Your task to perform on an android device: open chrome and create a bookmark for the current page Image 0: 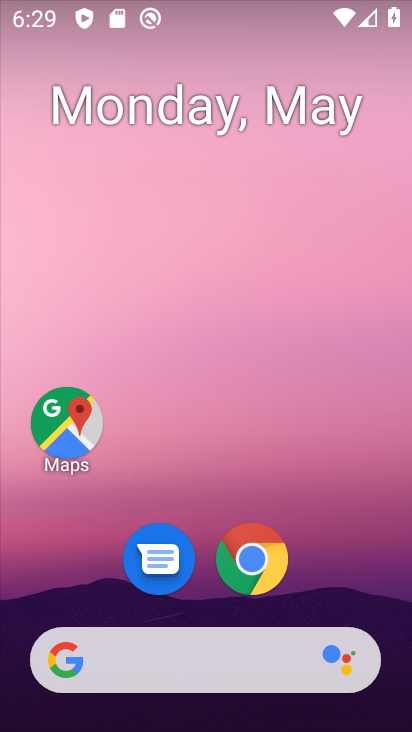
Step 0: drag from (390, 649) to (326, 57)
Your task to perform on an android device: open chrome and create a bookmark for the current page Image 1: 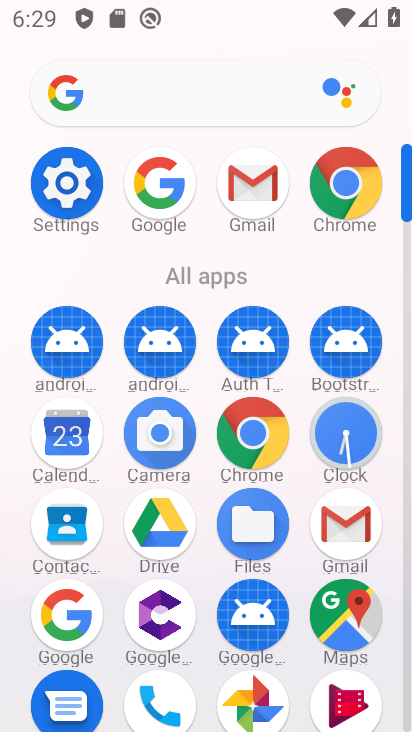
Step 1: click (353, 177)
Your task to perform on an android device: open chrome and create a bookmark for the current page Image 2: 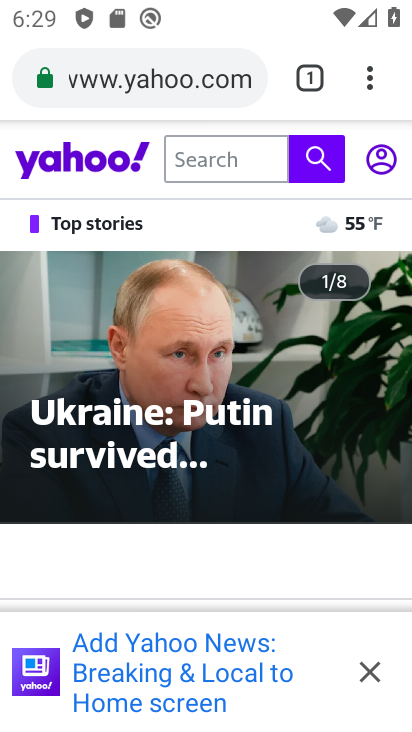
Step 2: press back button
Your task to perform on an android device: open chrome and create a bookmark for the current page Image 3: 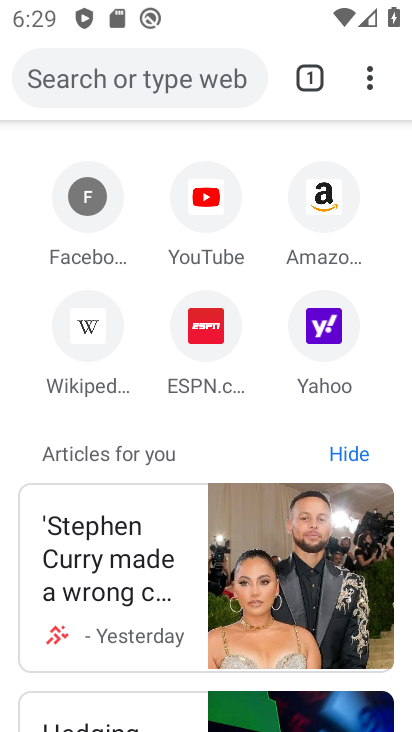
Step 3: click (372, 71)
Your task to perform on an android device: open chrome and create a bookmark for the current page Image 4: 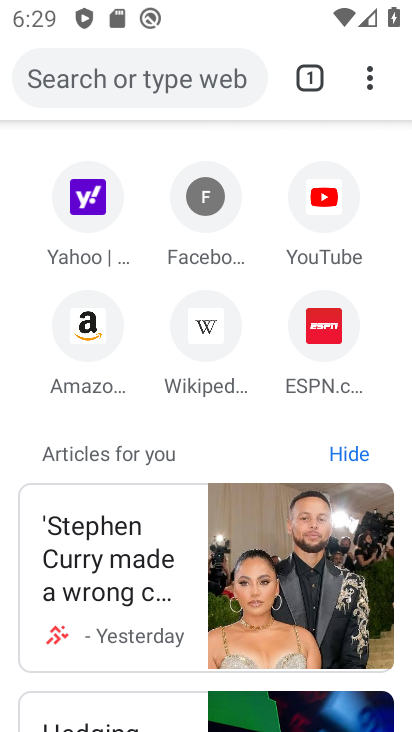
Step 4: click (369, 69)
Your task to perform on an android device: open chrome and create a bookmark for the current page Image 5: 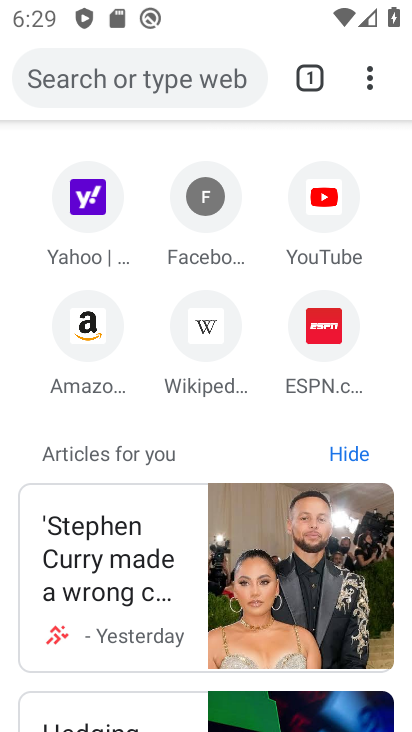
Step 5: click (369, 69)
Your task to perform on an android device: open chrome and create a bookmark for the current page Image 6: 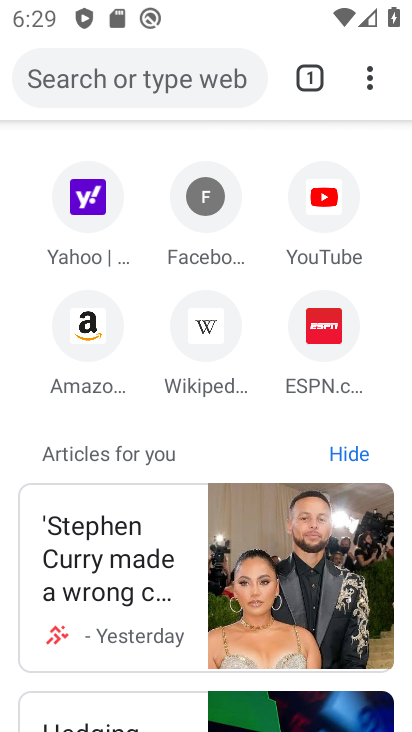
Step 6: click (368, 81)
Your task to perform on an android device: open chrome and create a bookmark for the current page Image 7: 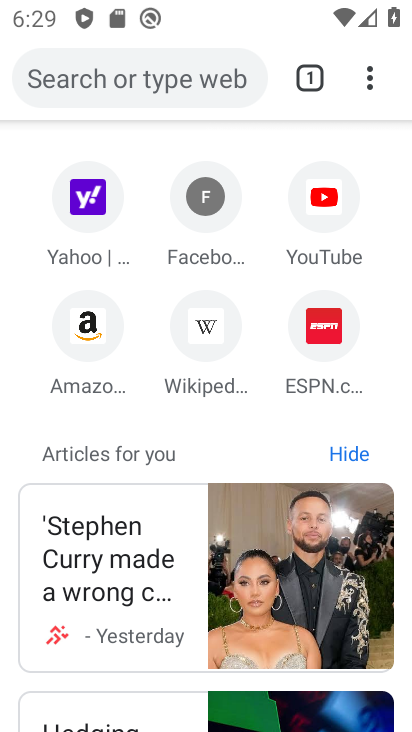
Step 7: click (376, 89)
Your task to perform on an android device: open chrome and create a bookmark for the current page Image 8: 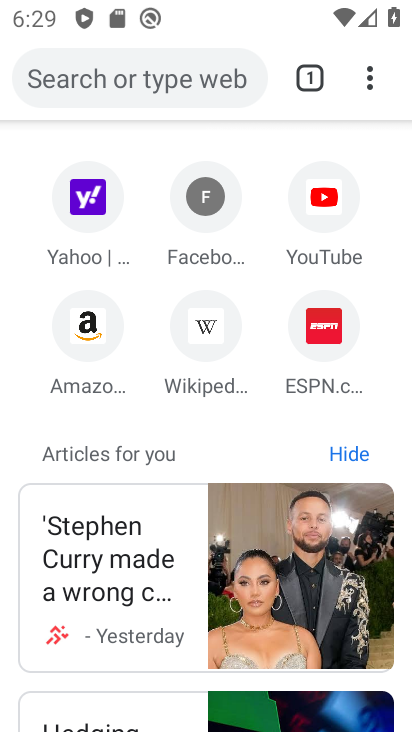
Step 8: click (380, 64)
Your task to perform on an android device: open chrome and create a bookmark for the current page Image 9: 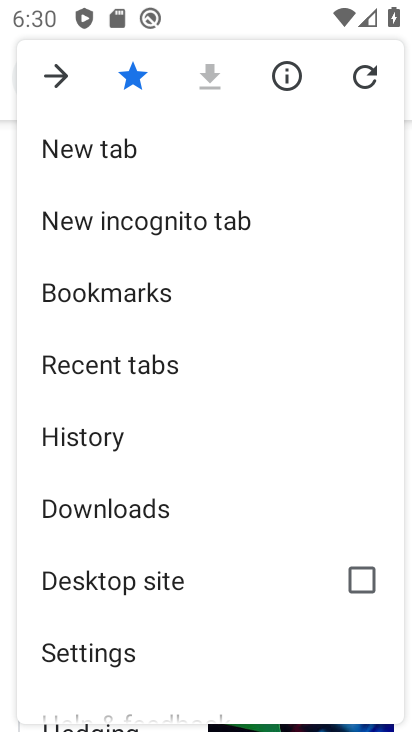
Step 9: task complete